Your task to perform on an android device: Set the phone to "Do not disturb". Image 0: 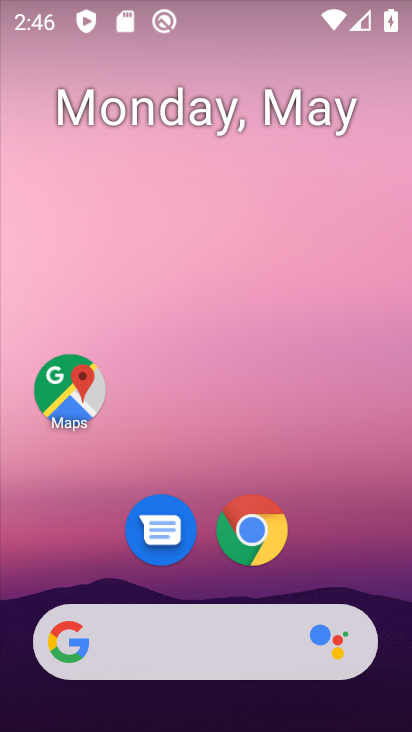
Step 0: drag from (184, 23) to (208, 616)
Your task to perform on an android device: Set the phone to "Do not disturb". Image 1: 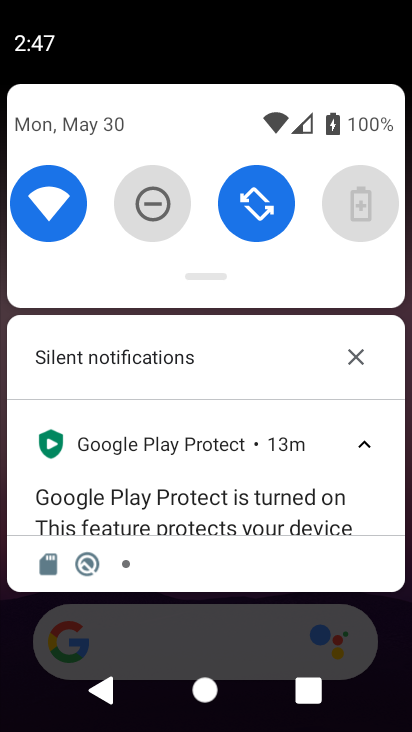
Step 1: click (169, 227)
Your task to perform on an android device: Set the phone to "Do not disturb". Image 2: 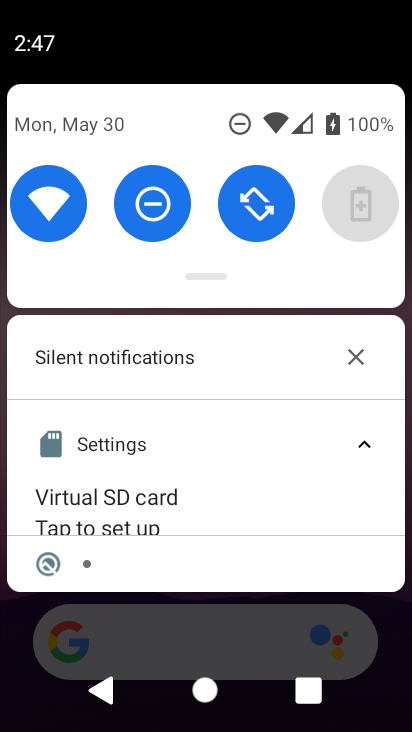
Step 2: task complete